Your task to perform on an android device: turn off translation in the chrome app Image 0: 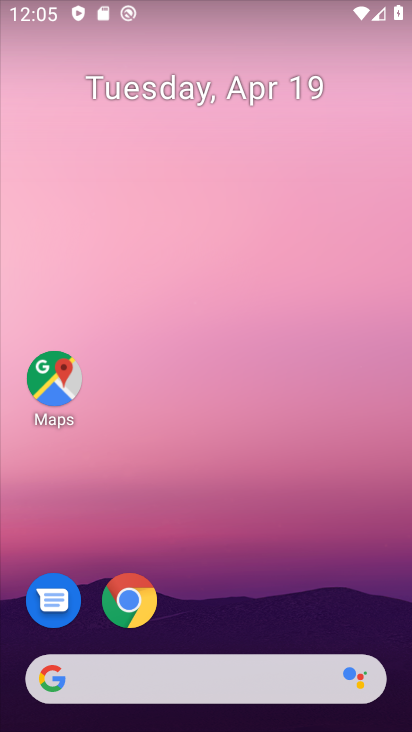
Step 0: drag from (318, 550) to (406, 25)
Your task to perform on an android device: turn off translation in the chrome app Image 1: 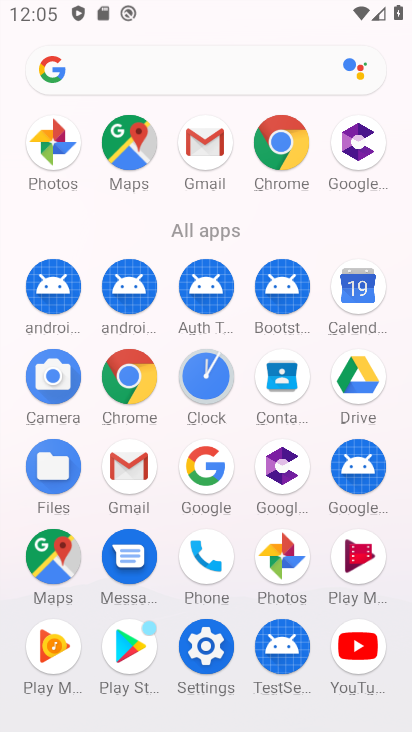
Step 1: click (274, 149)
Your task to perform on an android device: turn off translation in the chrome app Image 2: 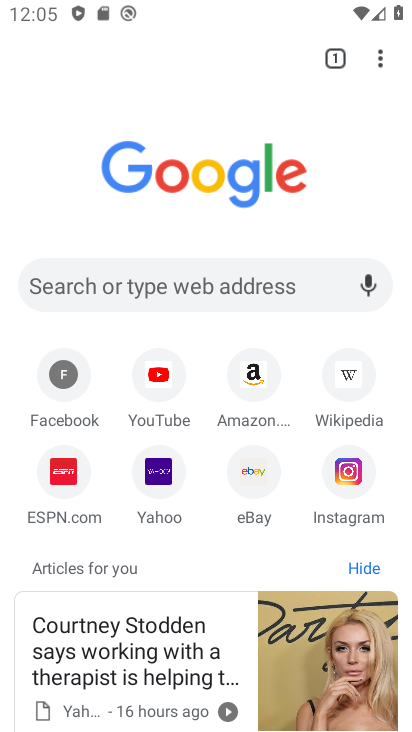
Step 2: click (380, 41)
Your task to perform on an android device: turn off translation in the chrome app Image 3: 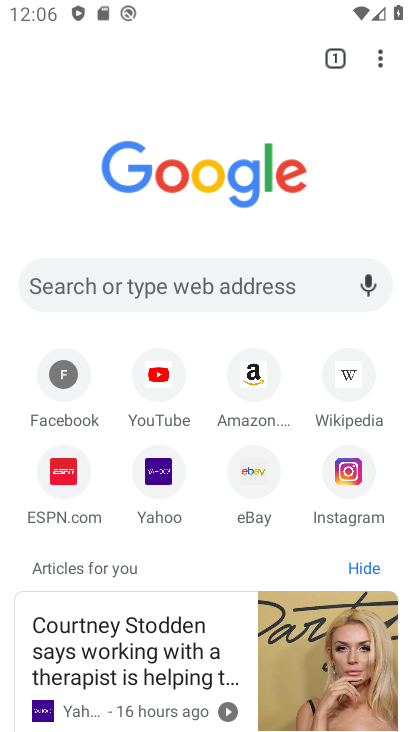
Step 3: click (374, 54)
Your task to perform on an android device: turn off translation in the chrome app Image 4: 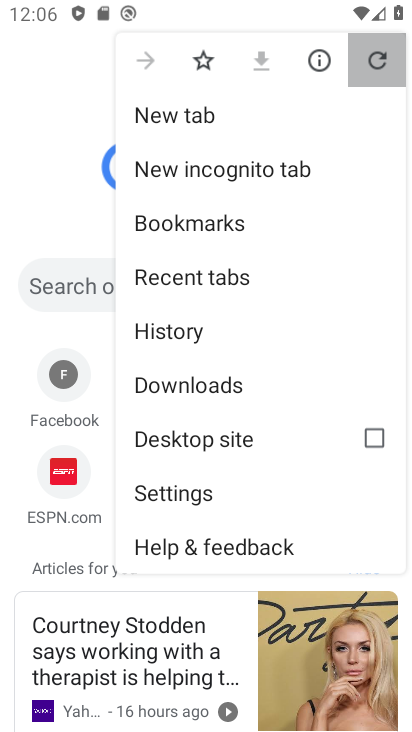
Step 4: drag from (324, 168) to (205, 352)
Your task to perform on an android device: turn off translation in the chrome app Image 5: 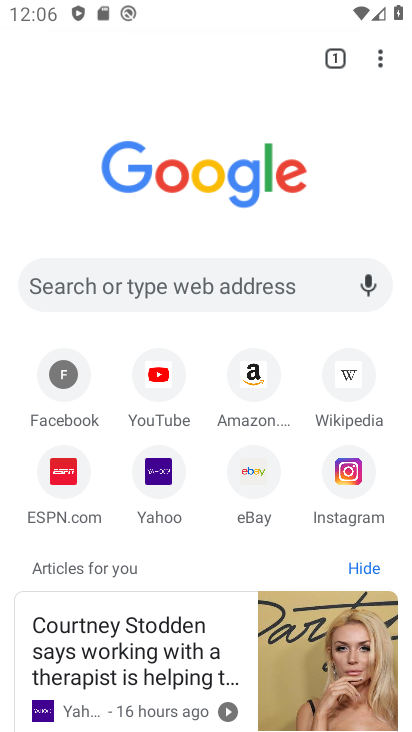
Step 5: drag from (382, 71) to (197, 495)
Your task to perform on an android device: turn off translation in the chrome app Image 6: 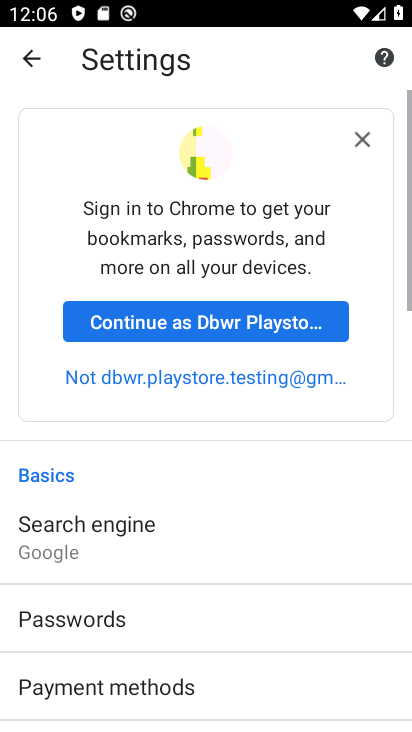
Step 6: drag from (146, 608) to (165, 201)
Your task to perform on an android device: turn off translation in the chrome app Image 7: 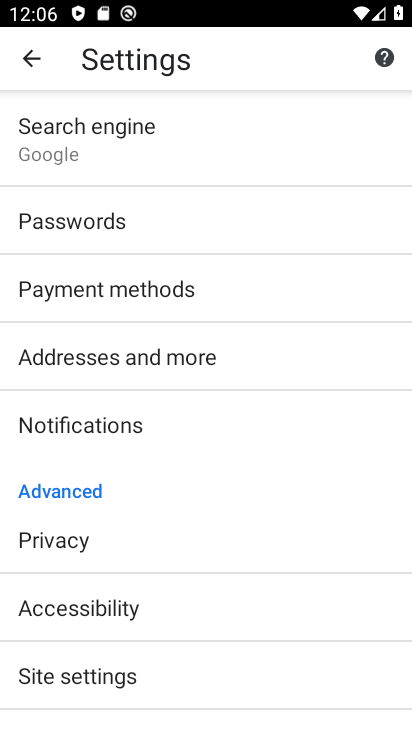
Step 7: drag from (164, 583) to (3, 59)
Your task to perform on an android device: turn off translation in the chrome app Image 8: 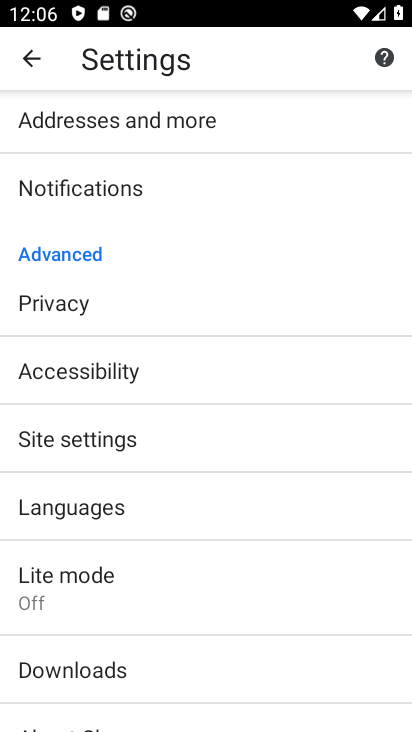
Step 8: click (120, 504)
Your task to perform on an android device: turn off translation in the chrome app Image 9: 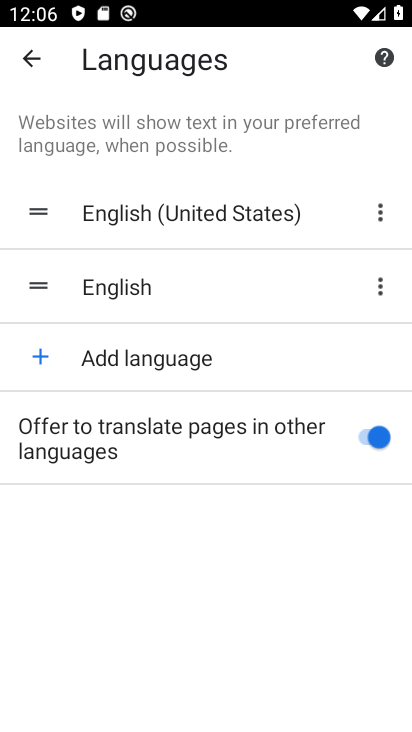
Step 9: click (329, 420)
Your task to perform on an android device: turn off translation in the chrome app Image 10: 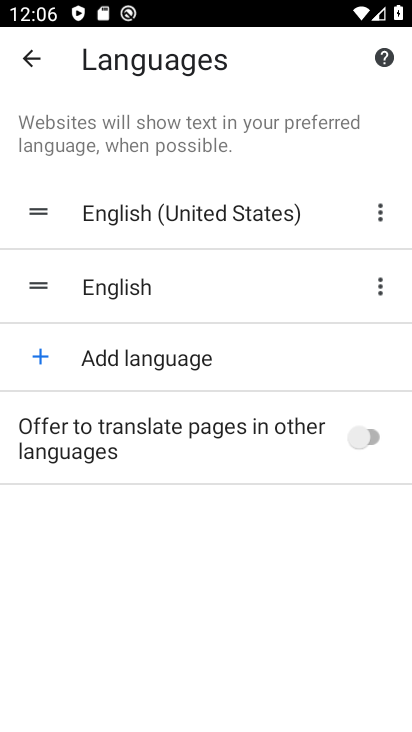
Step 10: task complete